Your task to perform on an android device: Open location settings Image 0: 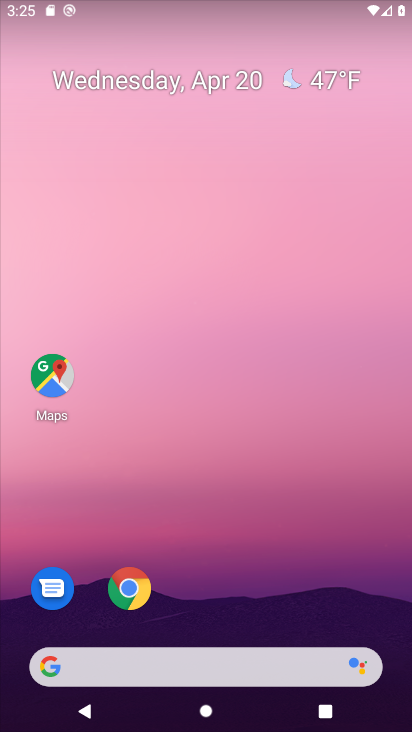
Step 0: drag from (232, 618) to (273, 32)
Your task to perform on an android device: Open location settings Image 1: 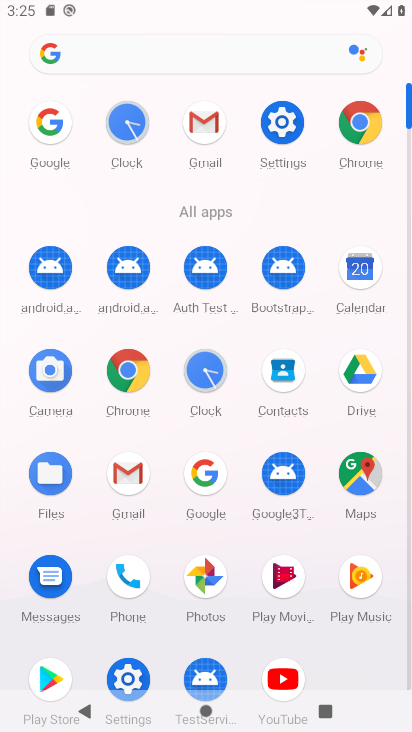
Step 1: click (279, 132)
Your task to perform on an android device: Open location settings Image 2: 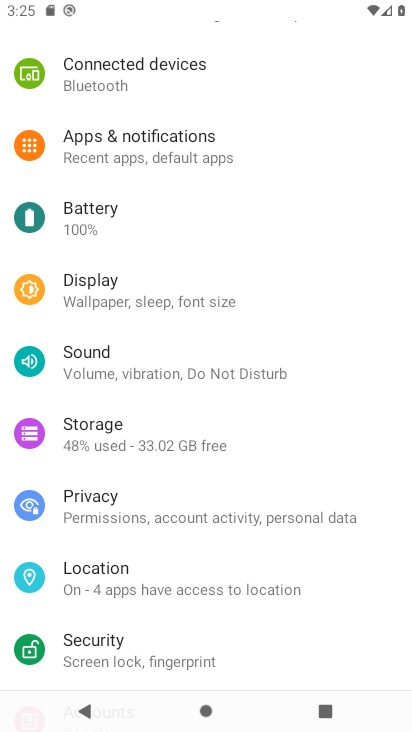
Step 2: click (86, 578)
Your task to perform on an android device: Open location settings Image 3: 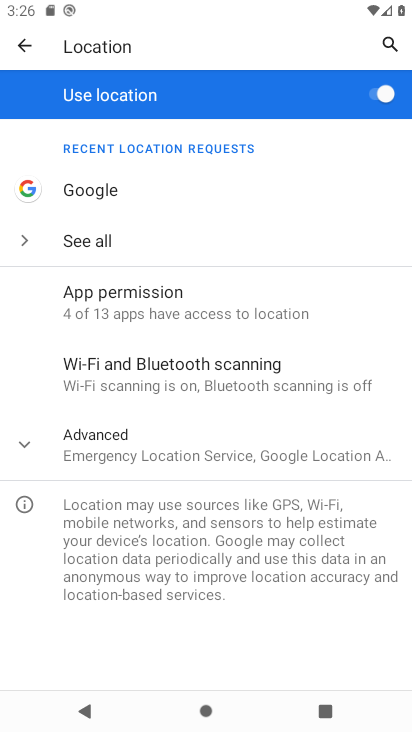
Step 3: task complete